Your task to perform on an android device: open sync settings in chrome Image 0: 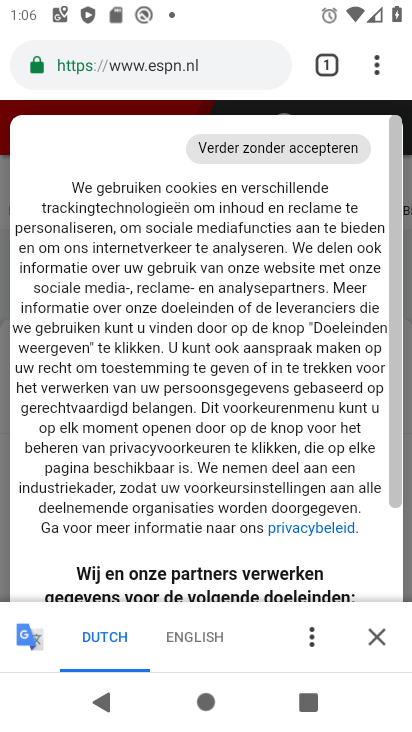
Step 0: press home button
Your task to perform on an android device: open sync settings in chrome Image 1: 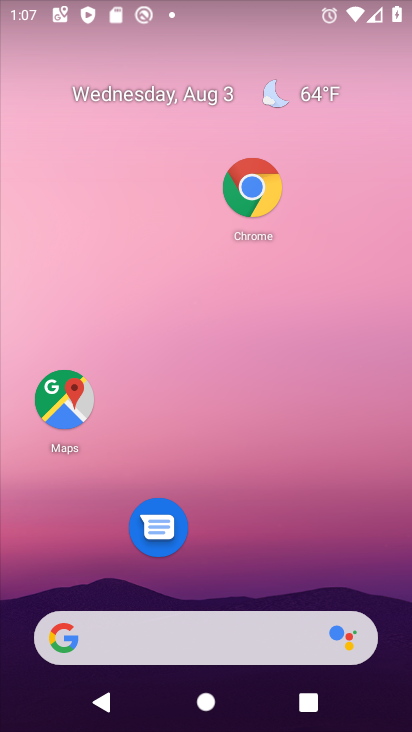
Step 1: click (251, 194)
Your task to perform on an android device: open sync settings in chrome Image 2: 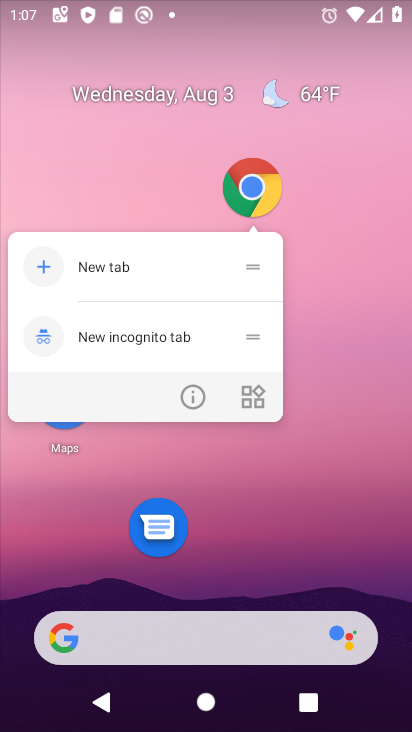
Step 2: click (252, 197)
Your task to perform on an android device: open sync settings in chrome Image 3: 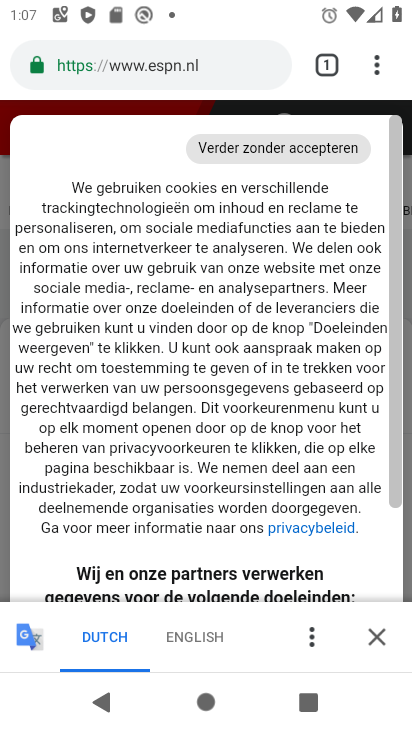
Step 3: click (371, 67)
Your task to perform on an android device: open sync settings in chrome Image 4: 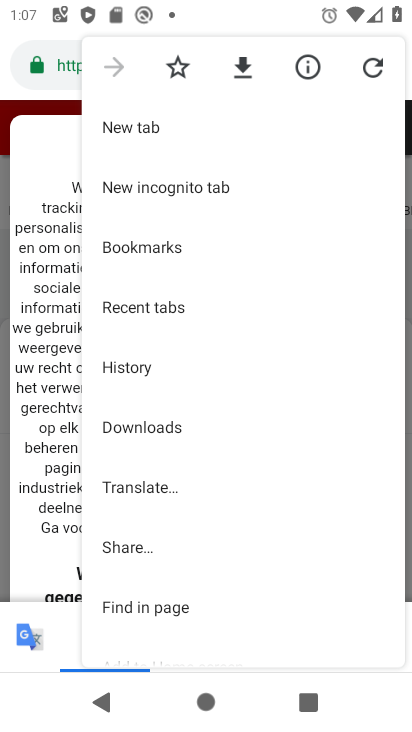
Step 4: drag from (148, 573) to (211, 231)
Your task to perform on an android device: open sync settings in chrome Image 5: 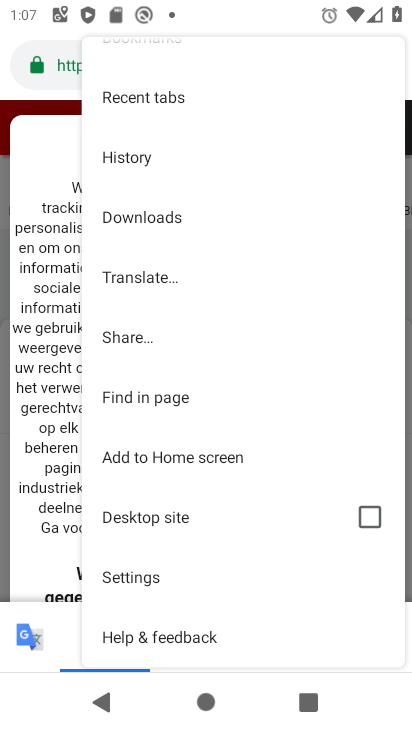
Step 5: click (150, 582)
Your task to perform on an android device: open sync settings in chrome Image 6: 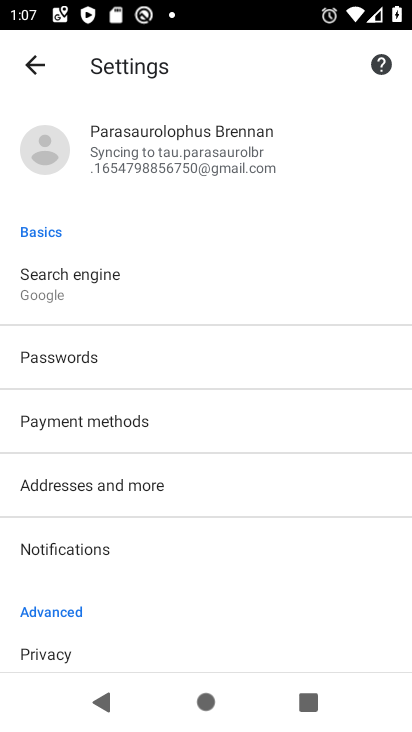
Step 6: click (153, 152)
Your task to perform on an android device: open sync settings in chrome Image 7: 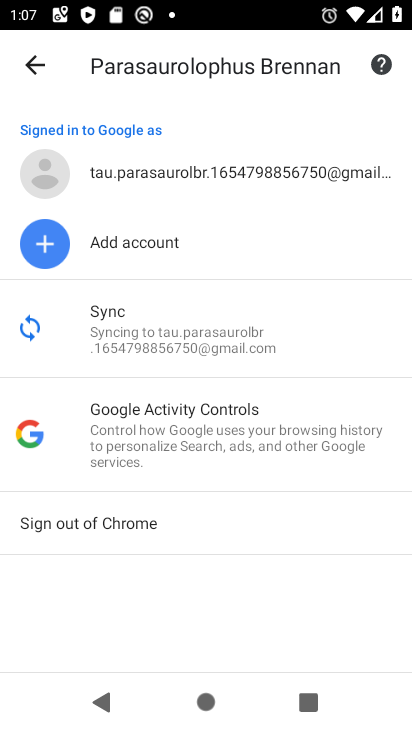
Step 7: click (170, 327)
Your task to perform on an android device: open sync settings in chrome Image 8: 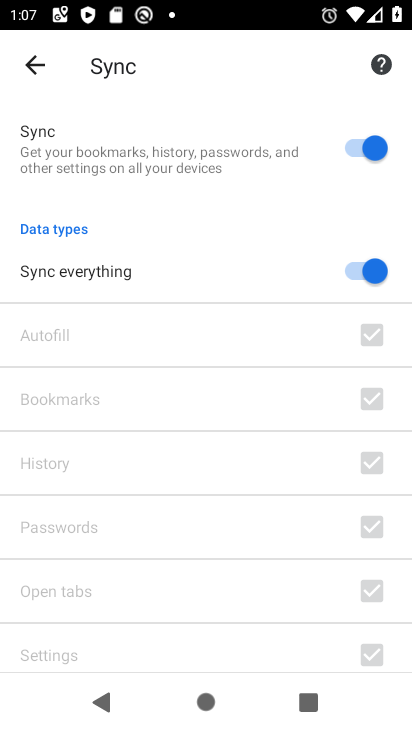
Step 8: task complete